Your task to perform on an android device: Open a new Chrome incognito window Image 0: 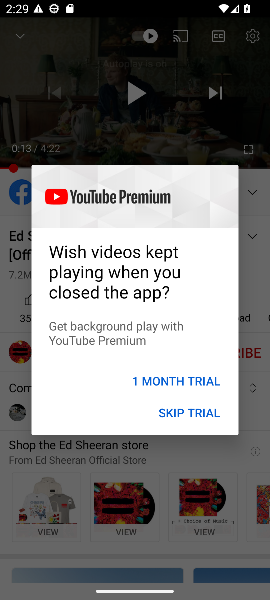
Step 0: press home button
Your task to perform on an android device: Open a new Chrome incognito window Image 1: 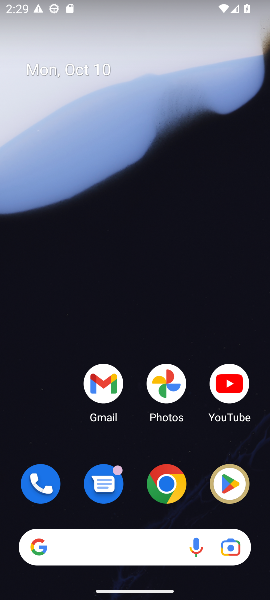
Step 1: click (168, 480)
Your task to perform on an android device: Open a new Chrome incognito window Image 2: 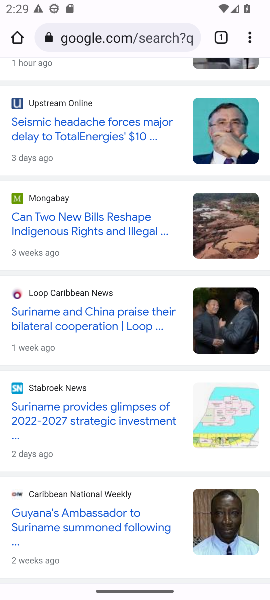
Step 2: click (248, 41)
Your task to perform on an android device: Open a new Chrome incognito window Image 3: 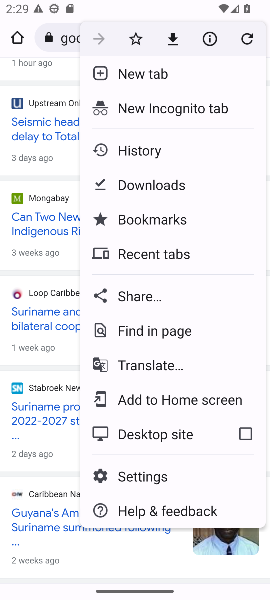
Step 3: click (169, 111)
Your task to perform on an android device: Open a new Chrome incognito window Image 4: 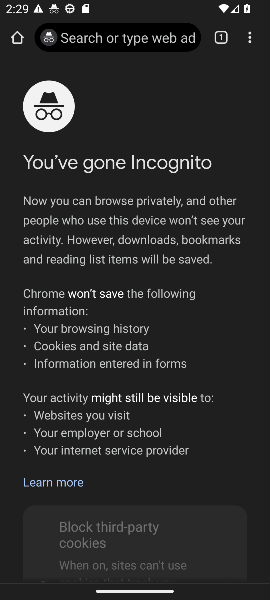
Step 4: task complete